Your task to perform on an android device: Set the phone to "Do not disturb". Image 0: 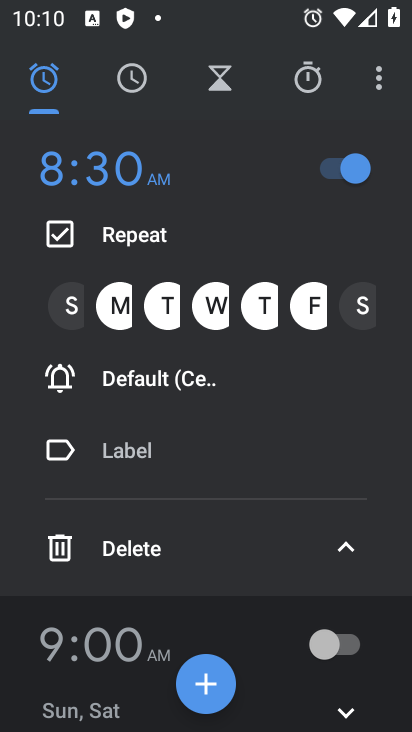
Step 0: press home button
Your task to perform on an android device: Set the phone to "Do not disturb". Image 1: 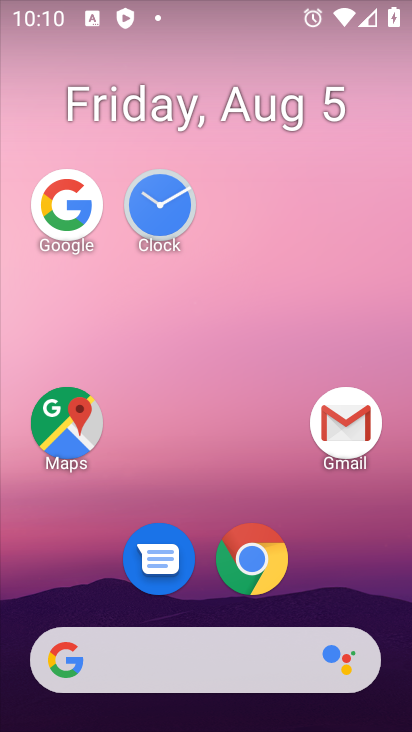
Step 1: drag from (355, 529) to (331, 47)
Your task to perform on an android device: Set the phone to "Do not disturb". Image 2: 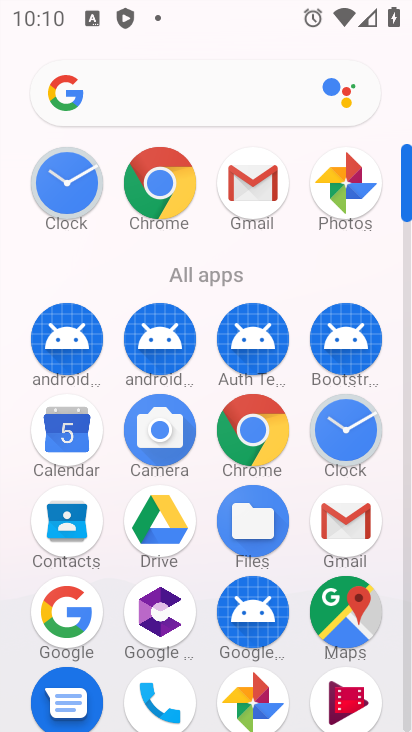
Step 2: drag from (181, 541) to (222, 135)
Your task to perform on an android device: Set the phone to "Do not disturb". Image 3: 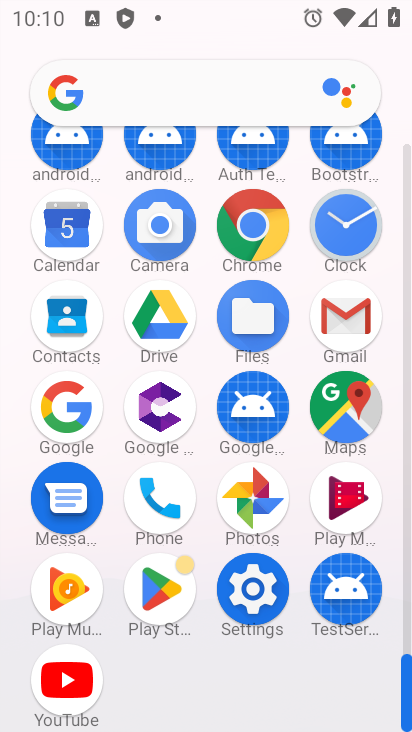
Step 3: drag from (268, 586) to (127, 352)
Your task to perform on an android device: Set the phone to "Do not disturb". Image 4: 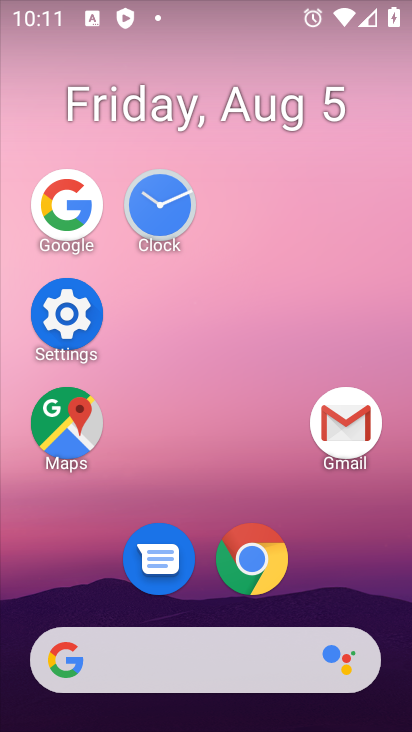
Step 4: click (84, 317)
Your task to perform on an android device: Set the phone to "Do not disturb". Image 5: 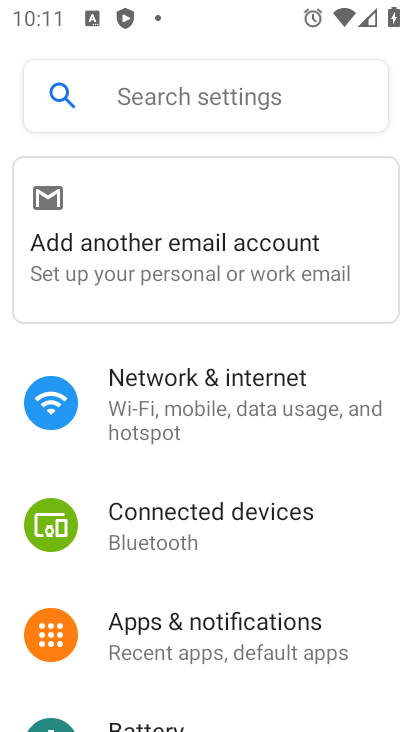
Step 5: drag from (284, 629) to (237, 267)
Your task to perform on an android device: Set the phone to "Do not disturb". Image 6: 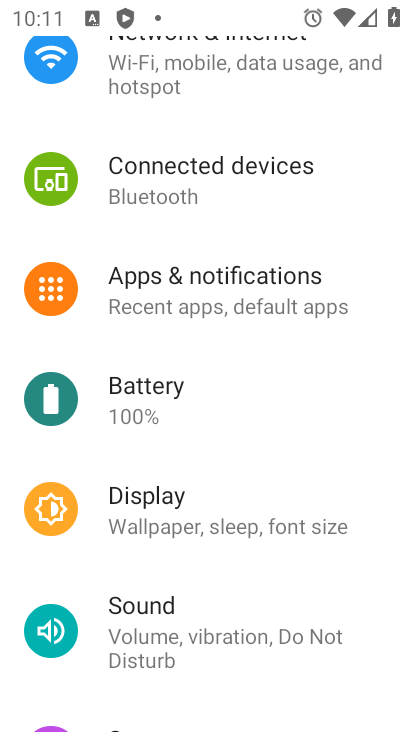
Step 6: click (251, 629)
Your task to perform on an android device: Set the phone to "Do not disturb". Image 7: 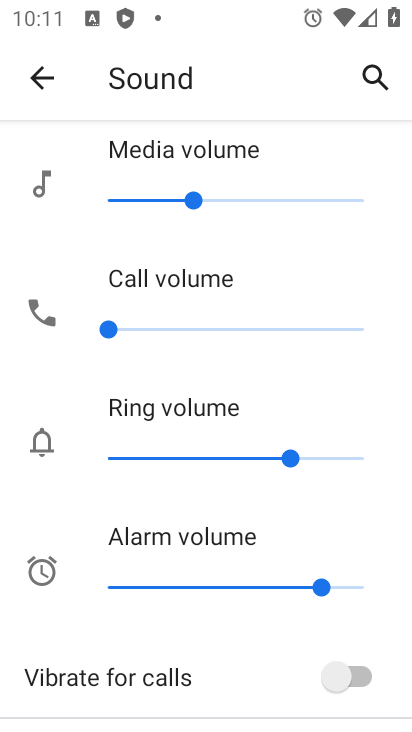
Step 7: drag from (296, 687) to (235, 318)
Your task to perform on an android device: Set the phone to "Do not disturb". Image 8: 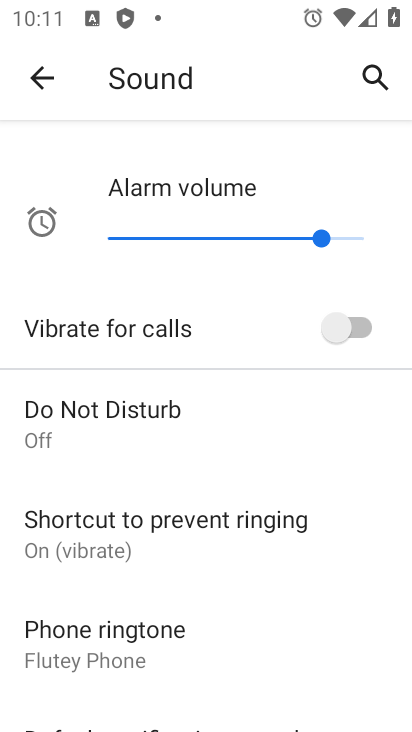
Step 8: click (194, 411)
Your task to perform on an android device: Set the phone to "Do not disturb". Image 9: 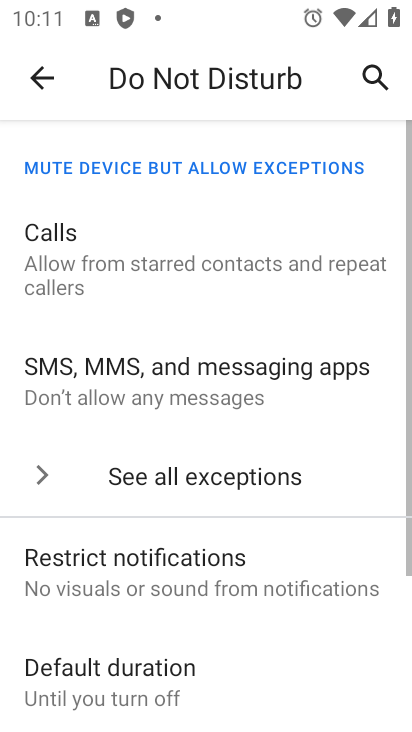
Step 9: drag from (194, 411) to (180, 166)
Your task to perform on an android device: Set the phone to "Do not disturb". Image 10: 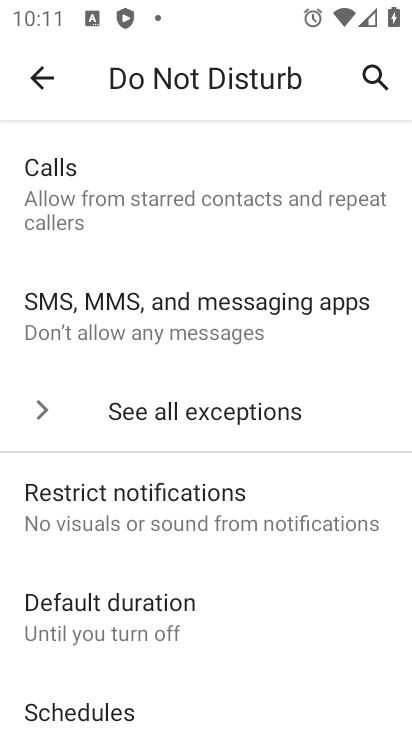
Step 10: drag from (147, 629) to (138, 297)
Your task to perform on an android device: Set the phone to "Do not disturb". Image 11: 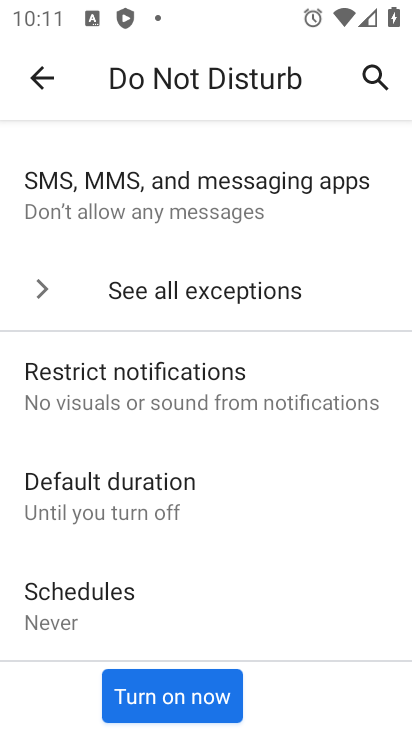
Step 11: drag from (211, 651) to (217, 289)
Your task to perform on an android device: Set the phone to "Do not disturb". Image 12: 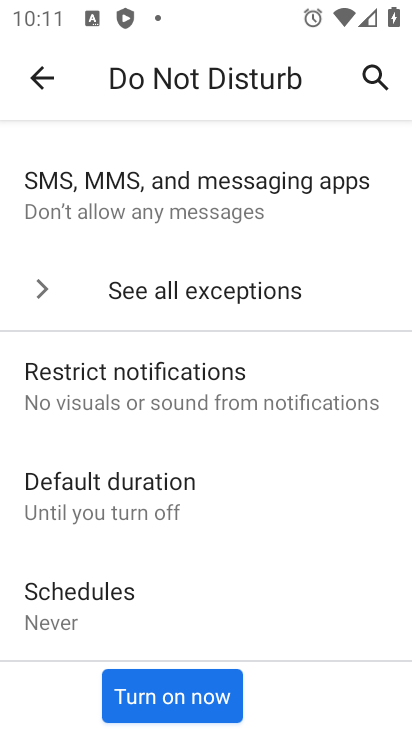
Step 12: click (173, 705)
Your task to perform on an android device: Set the phone to "Do not disturb". Image 13: 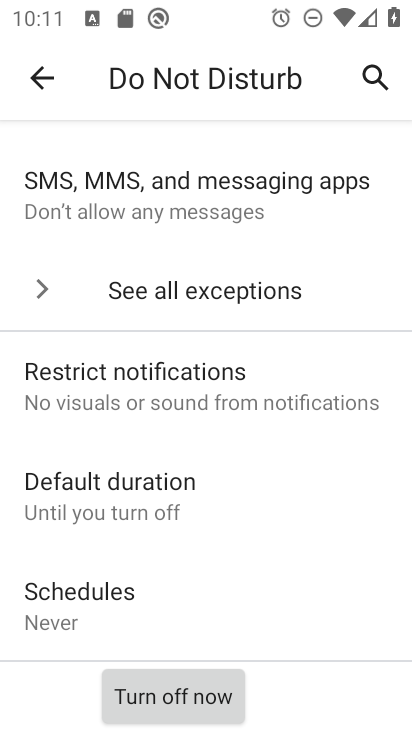
Step 13: task complete